Your task to perform on an android device: Go to Wikipedia Image 0: 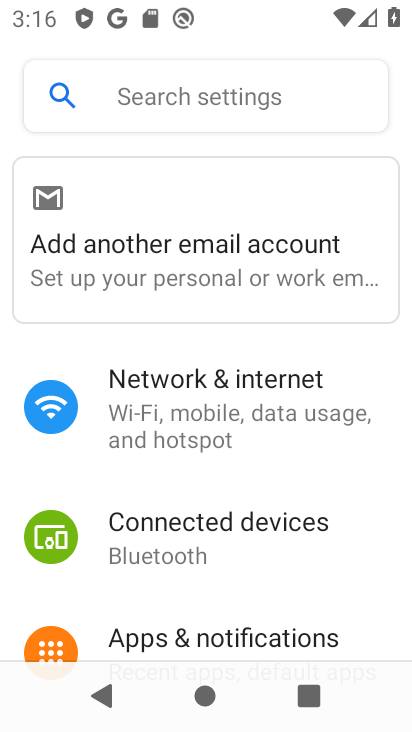
Step 0: press home button
Your task to perform on an android device: Go to Wikipedia Image 1: 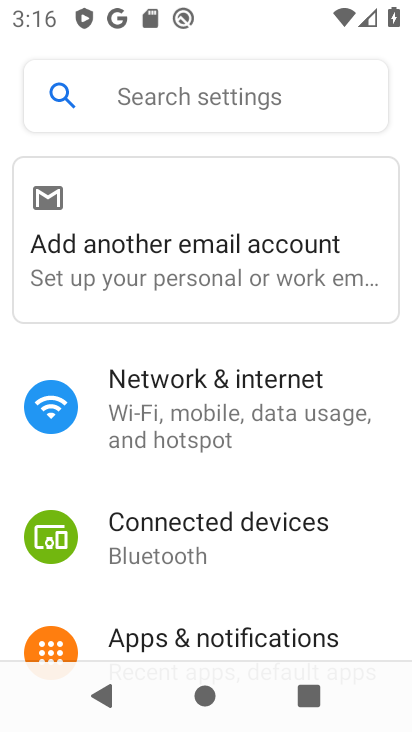
Step 1: press home button
Your task to perform on an android device: Go to Wikipedia Image 2: 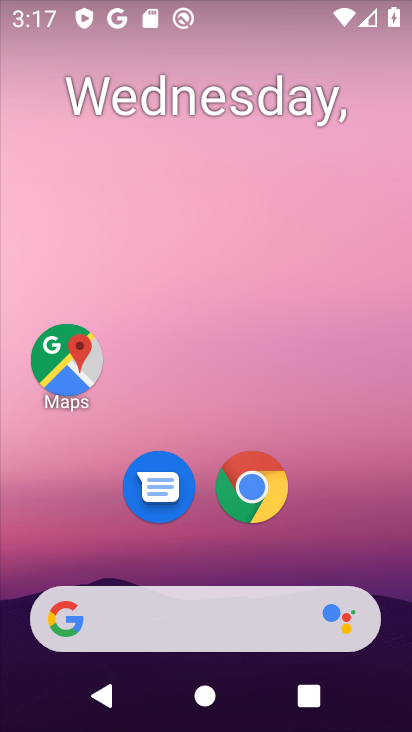
Step 2: click (261, 479)
Your task to perform on an android device: Go to Wikipedia Image 3: 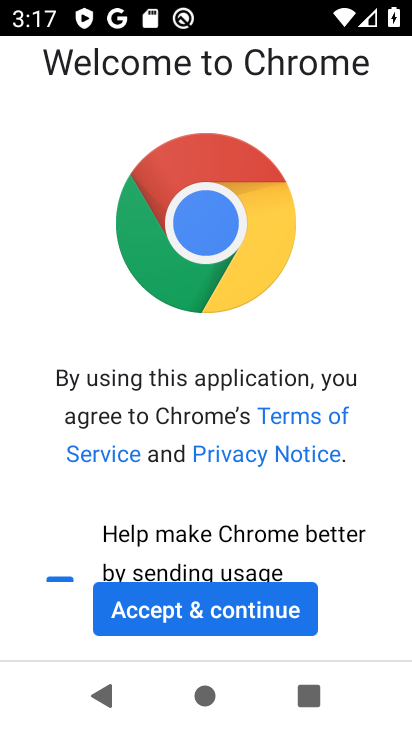
Step 3: click (254, 597)
Your task to perform on an android device: Go to Wikipedia Image 4: 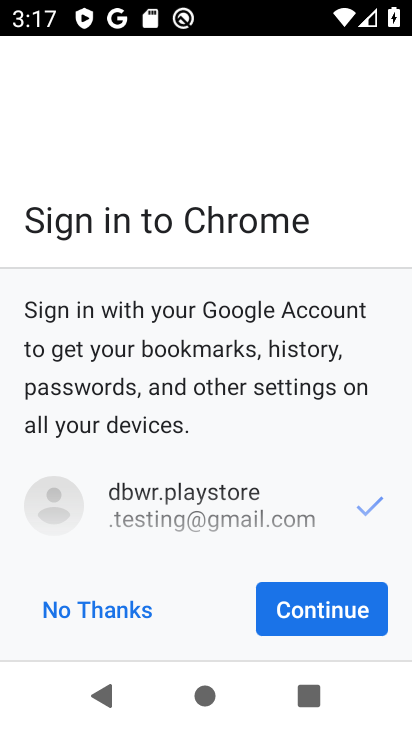
Step 4: click (311, 614)
Your task to perform on an android device: Go to Wikipedia Image 5: 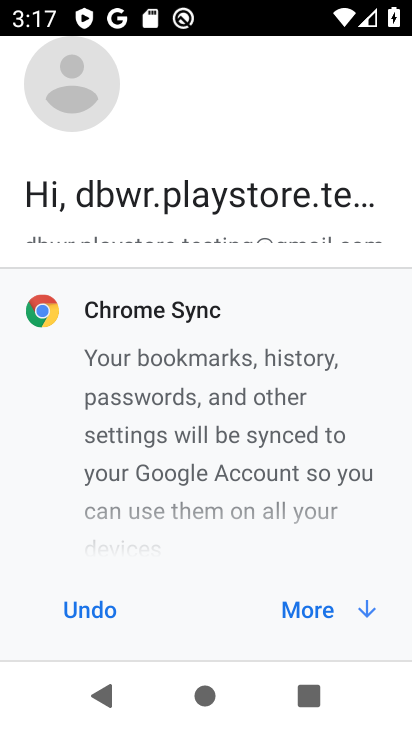
Step 5: click (311, 614)
Your task to perform on an android device: Go to Wikipedia Image 6: 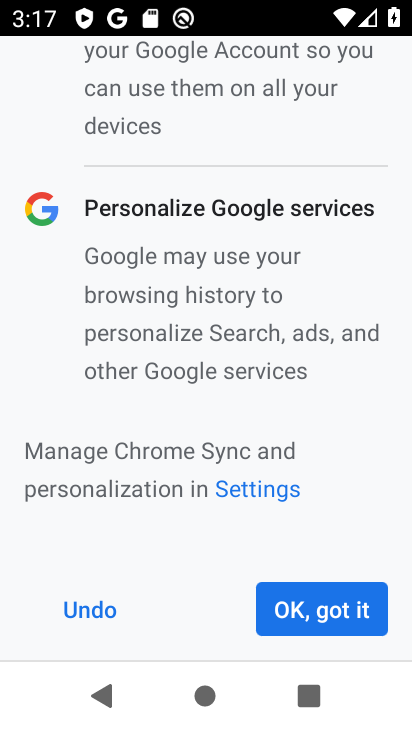
Step 6: click (311, 614)
Your task to perform on an android device: Go to Wikipedia Image 7: 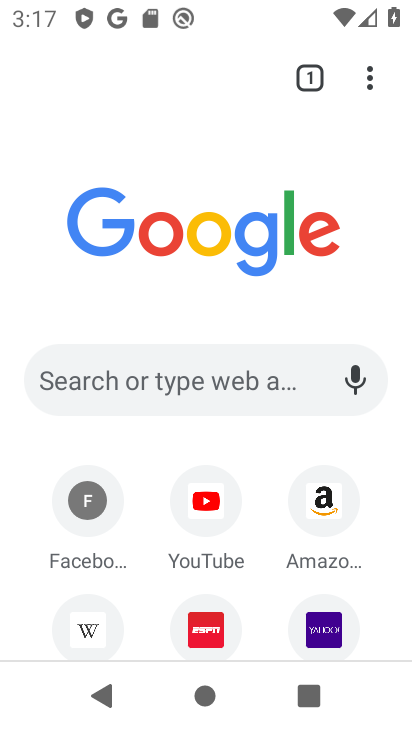
Step 7: click (94, 629)
Your task to perform on an android device: Go to Wikipedia Image 8: 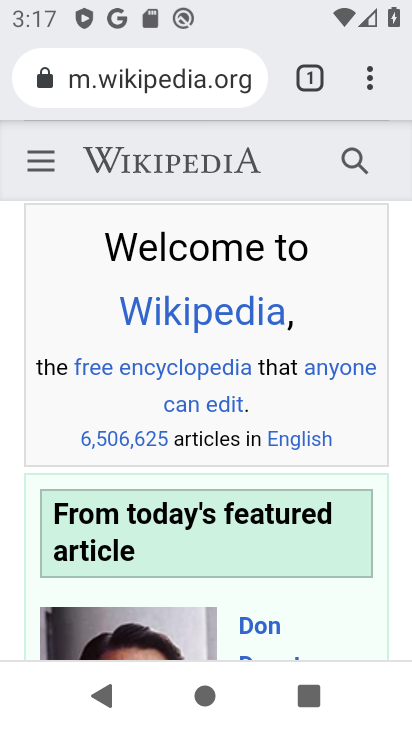
Step 8: task complete